Your task to perform on an android device: Open settings Image 0: 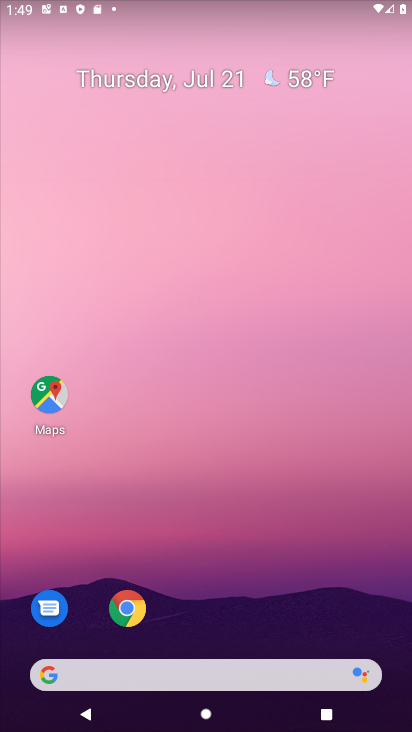
Step 0: drag from (391, 620) to (148, 59)
Your task to perform on an android device: Open settings Image 1: 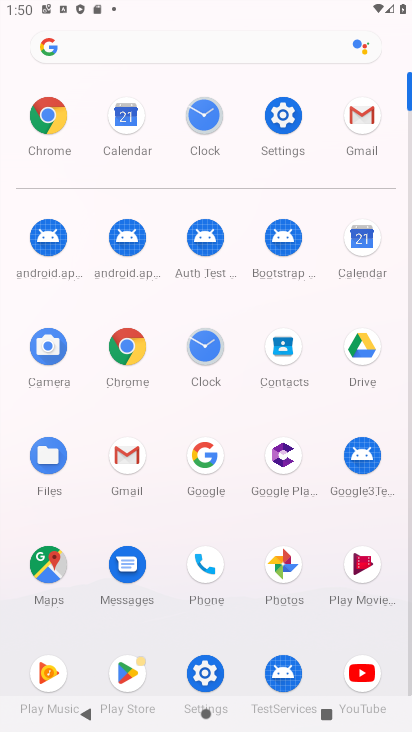
Step 1: click (206, 680)
Your task to perform on an android device: Open settings Image 2: 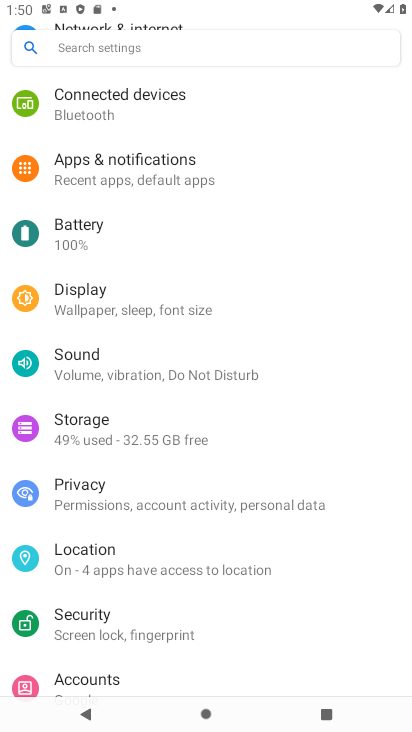
Step 2: task complete